Your task to perform on an android device: Open the calendar app, open the side menu, and click the "Day" option Image 0: 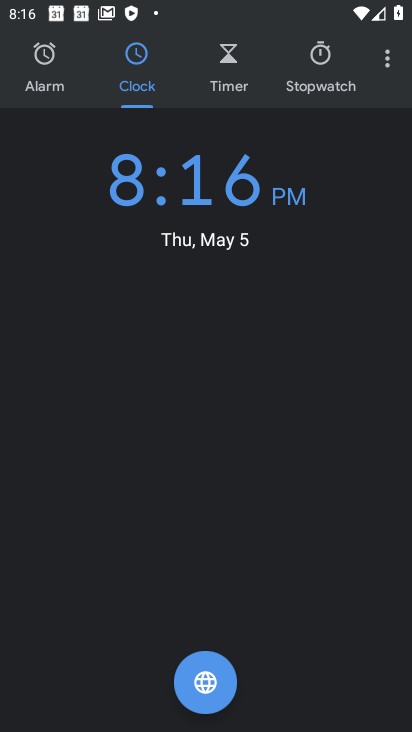
Step 0: press home button
Your task to perform on an android device: Open the calendar app, open the side menu, and click the "Day" option Image 1: 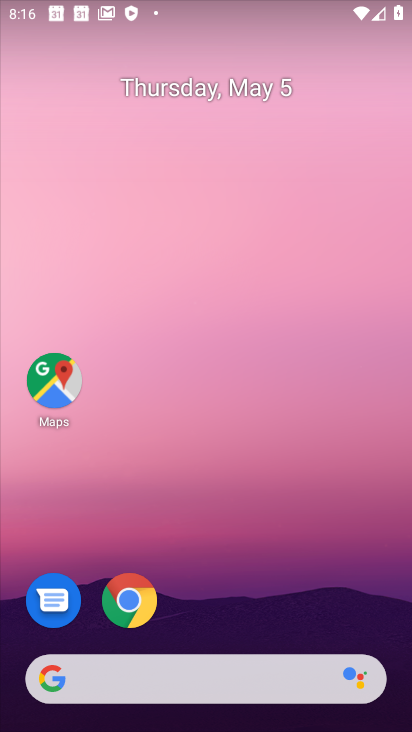
Step 1: drag from (371, 622) to (340, 159)
Your task to perform on an android device: Open the calendar app, open the side menu, and click the "Day" option Image 2: 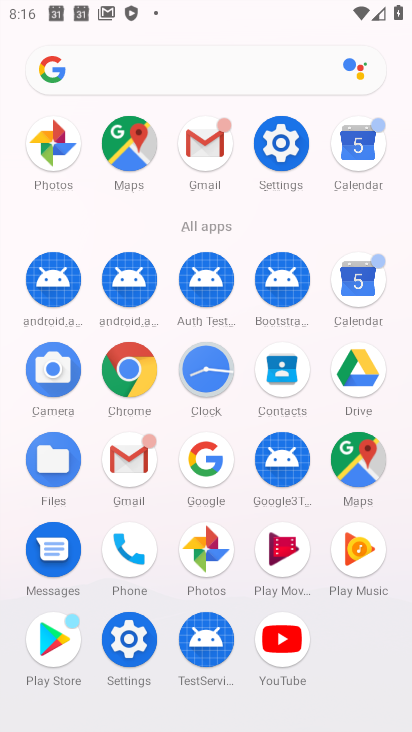
Step 2: click (363, 287)
Your task to perform on an android device: Open the calendar app, open the side menu, and click the "Day" option Image 3: 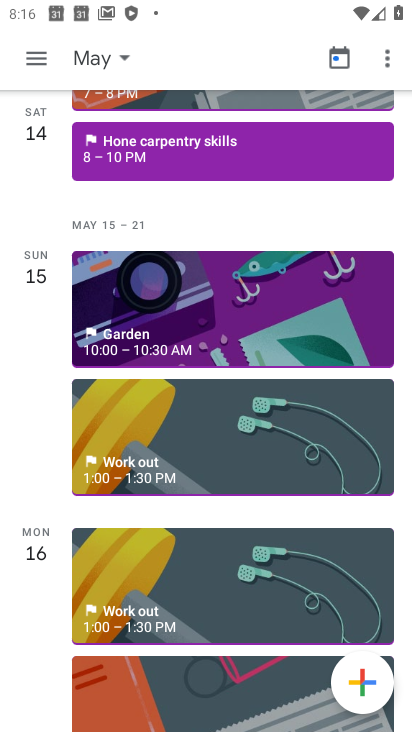
Step 3: click (34, 52)
Your task to perform on an android device: Open the calendar app, open the side menu, and click the "Day" option Image 4: 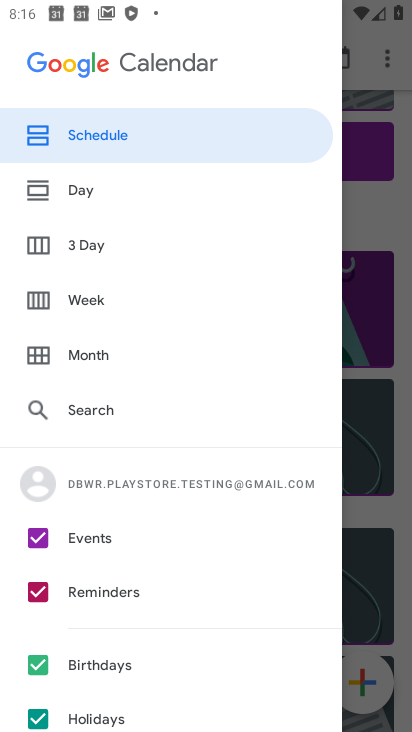
Step 4: click (78, 189)
Your task to perform on an android device: Open the calendar app, open the side menu, and click the "Day" option Image 5: 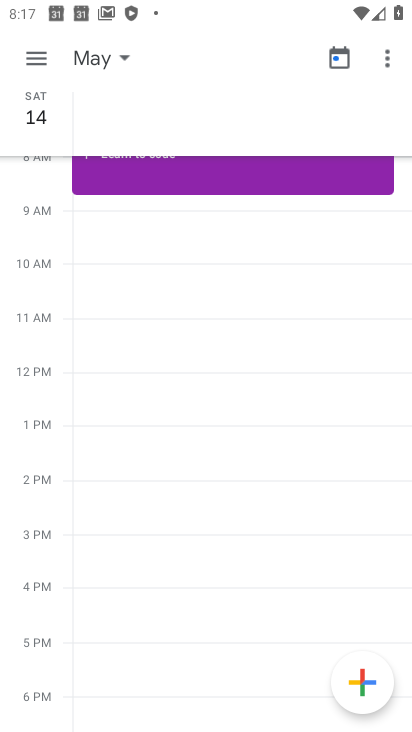
Step 5: task complete